Your task to perform on an android device: uninstall "Google Chat" Image 0: 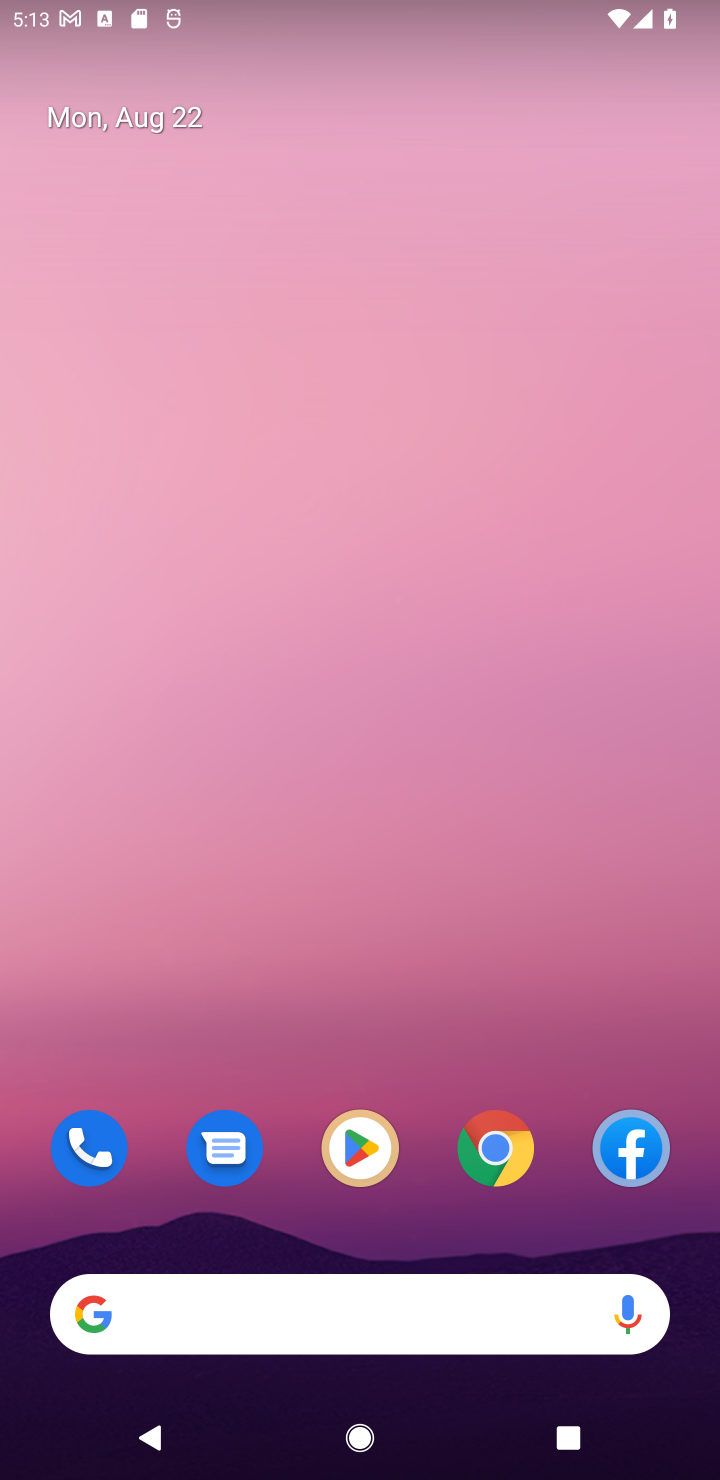
Step 0: click (357, 1142)
Your task to perform on an android device: uninstall "Google Chat" Image 1: 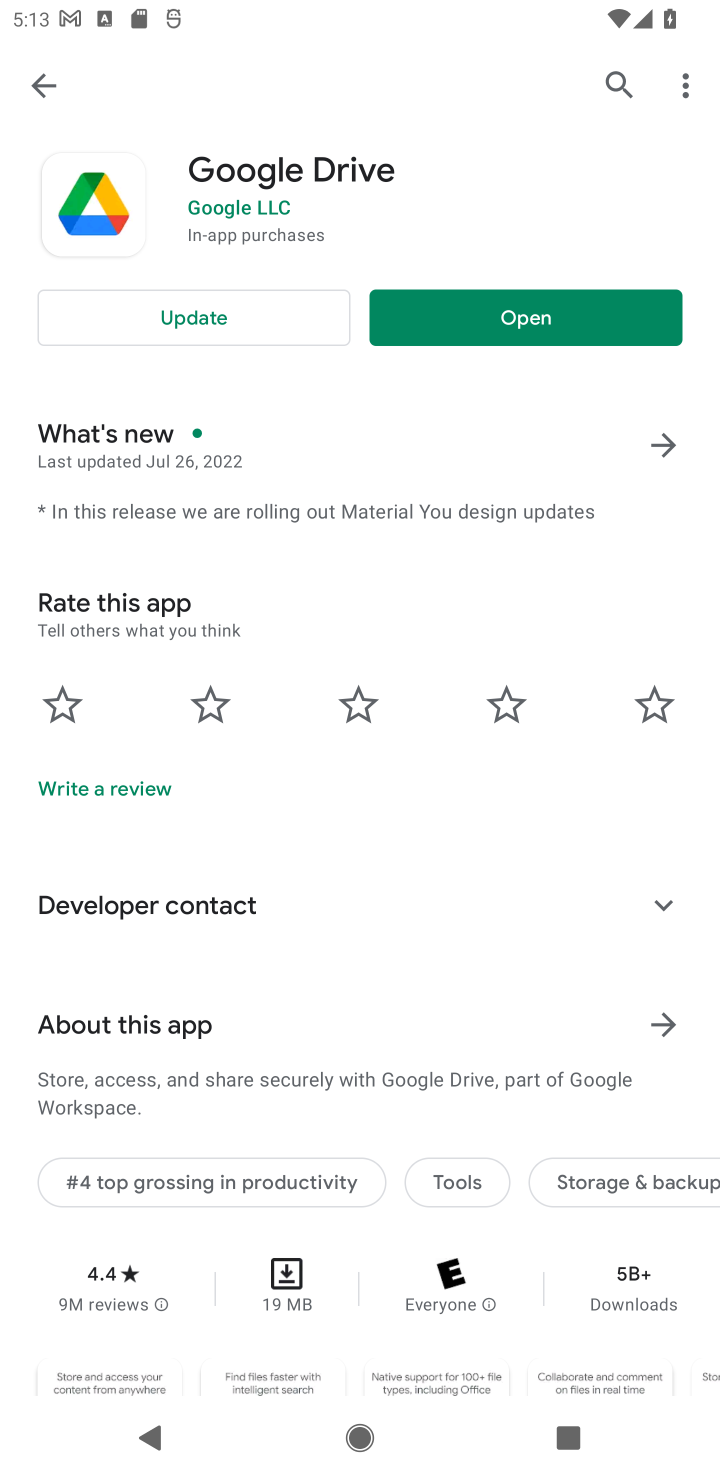
Step 1: click (609, 80)
Your task to perform on an android device: uninstall "Google Chat" Image 2: 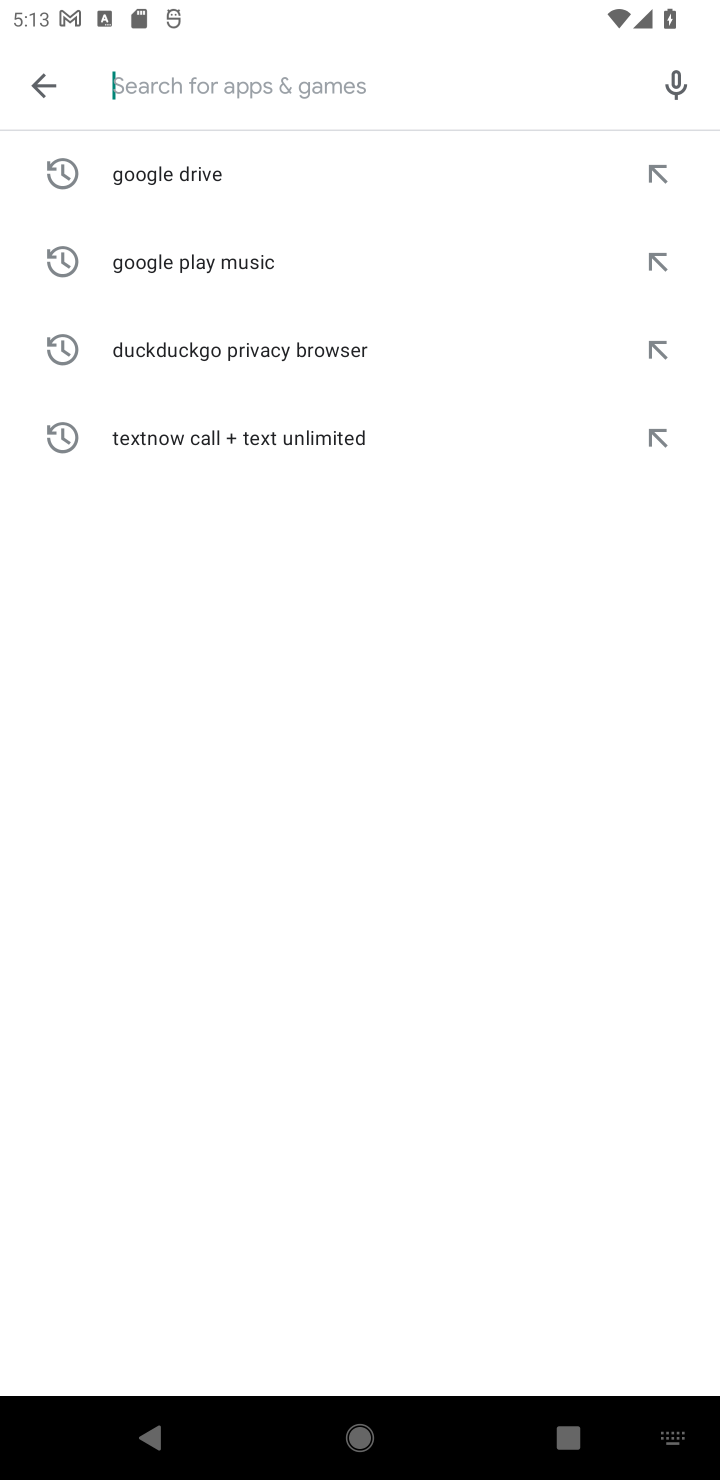
Step 2: type "Google Chat"
Your task to perform on an android device: uninstall "Google Chat" Image 3: 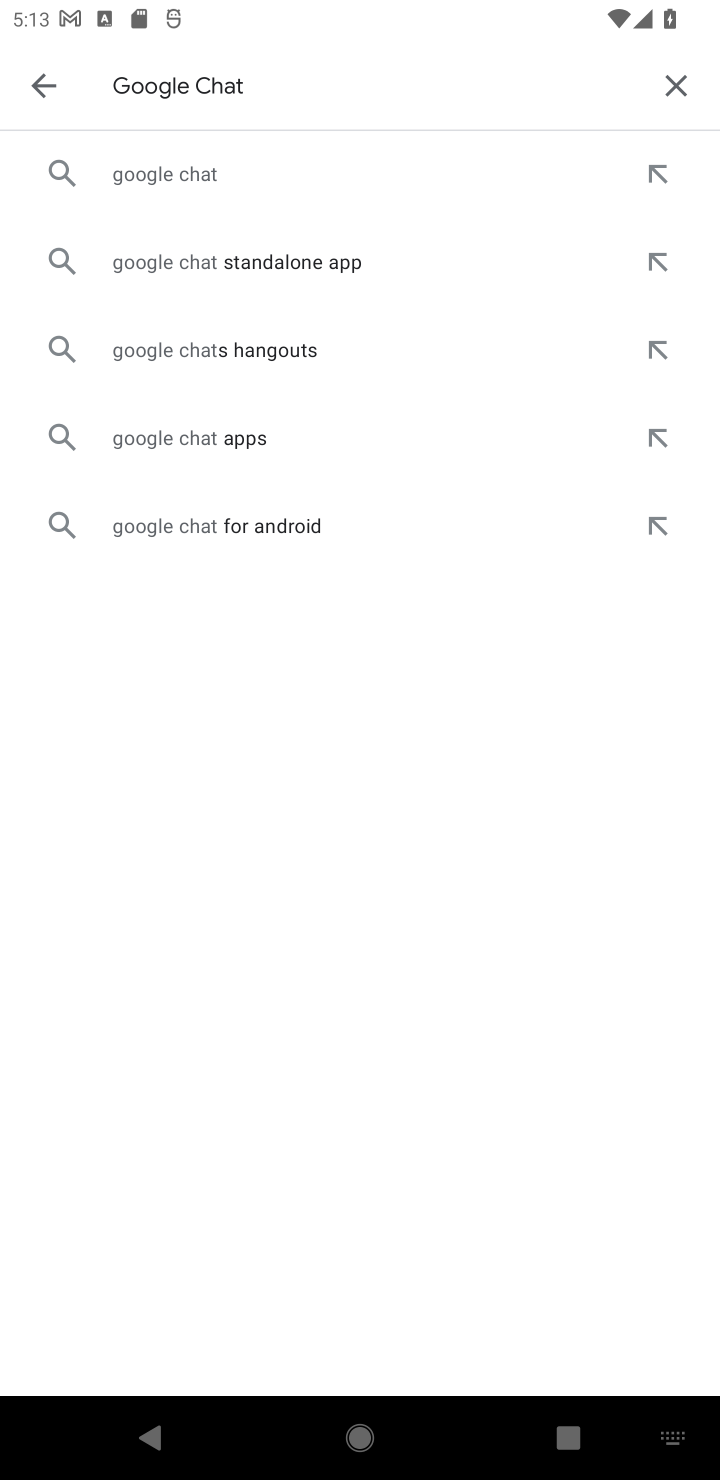
Step 3: click (141, 170)
Your task to perform on an android device: uninstall "Google Chat" Image 4: 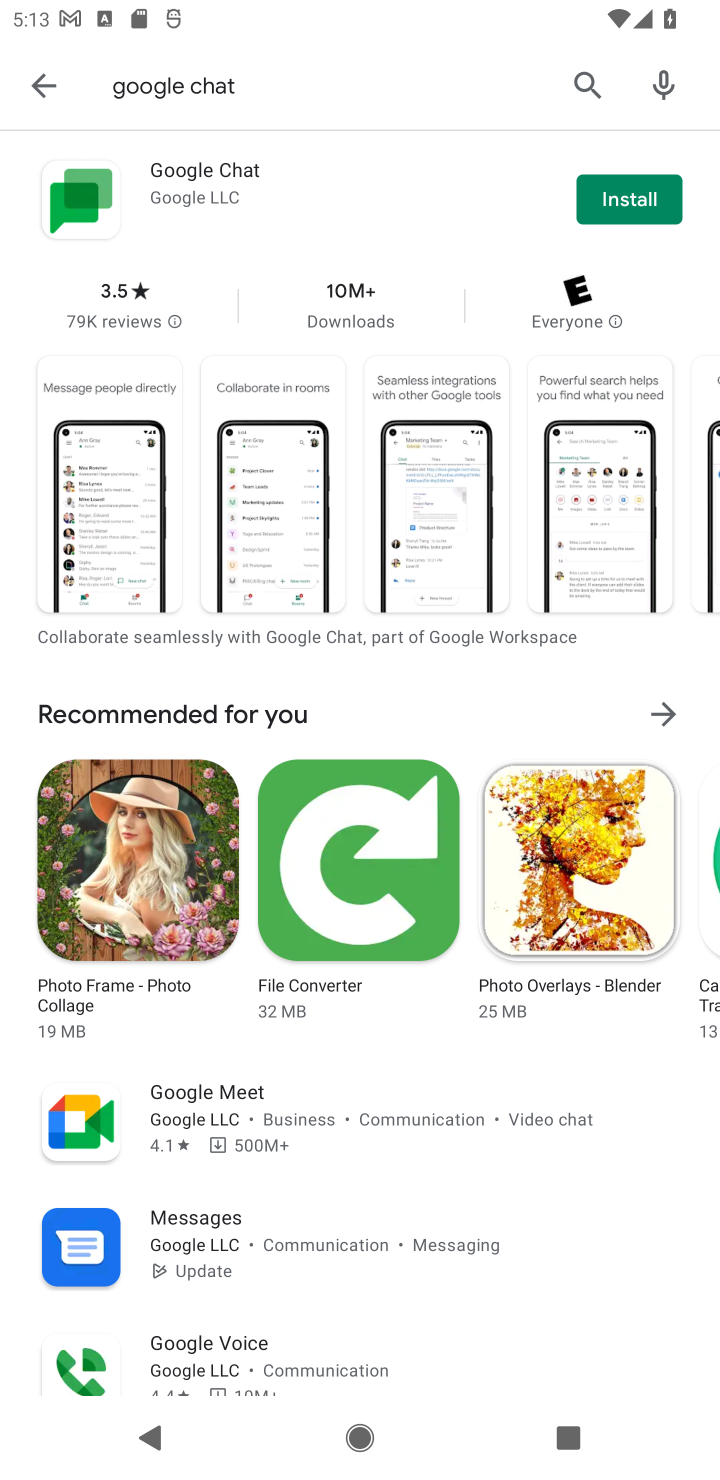
Step 4: click (185, 180)
Your task to perform on an android device: uninstall "Google Chat" Image 5: 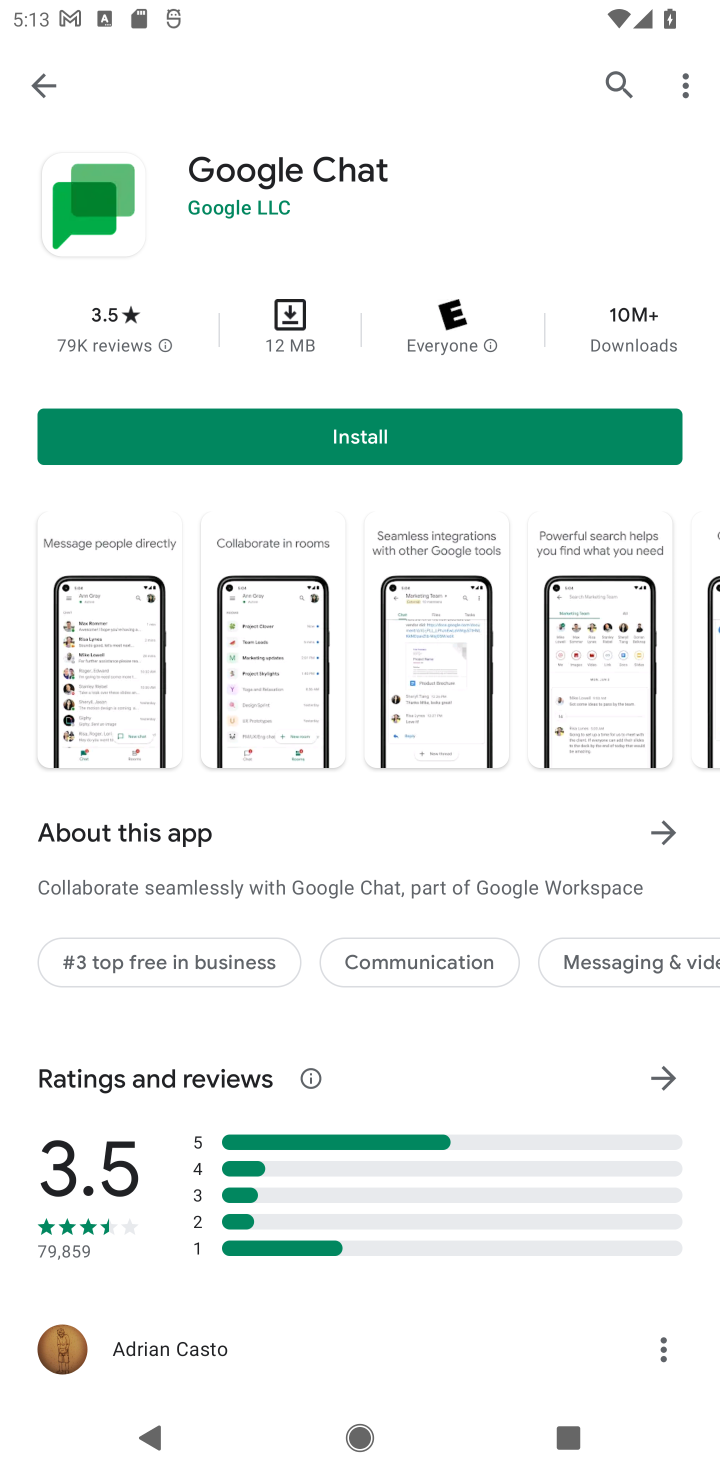
Step 5: task complete